Your task to perform on an android device: Open privacy settings Image 0: 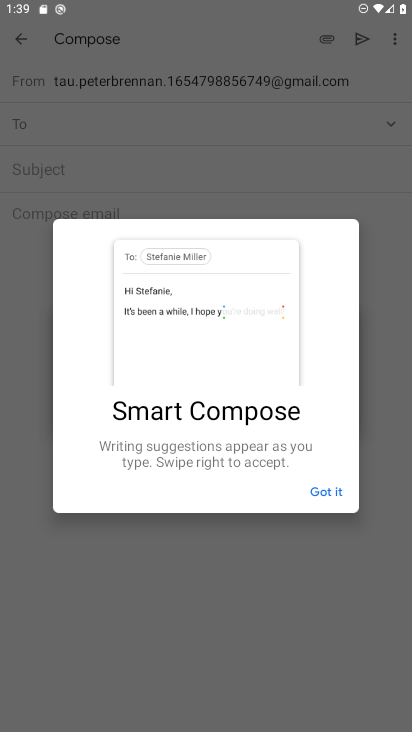
Step 0: click (318, 486)
Your task to perform on an android device: Open privacy settings Image 1: 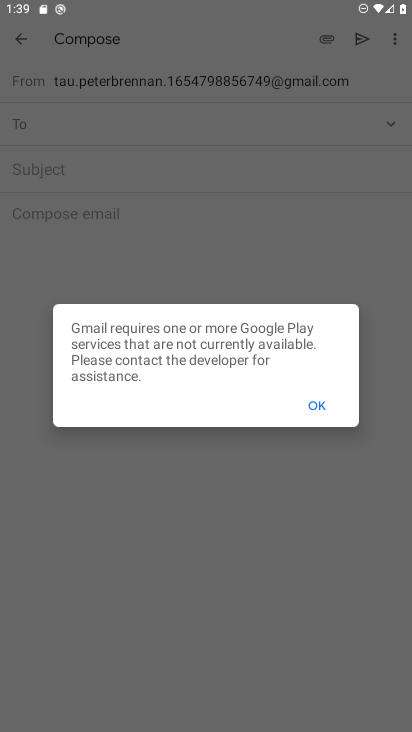
Step 1: press home button
Your task to perform on an android device: Open privacy settings Image 2: 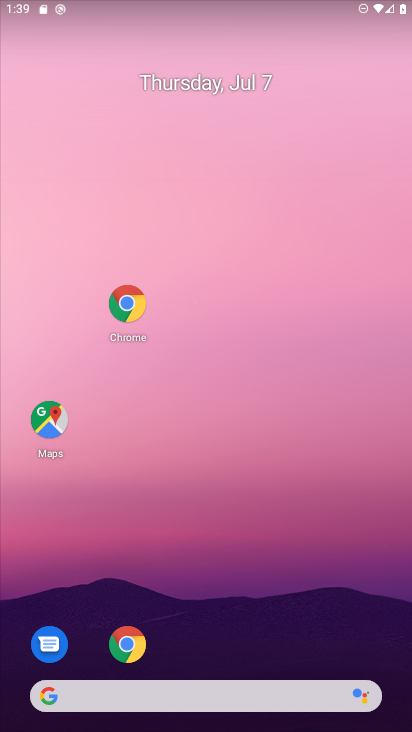
Step 2: drag from (232, 648) to (388, 13)
Your task to perform on an android device: Open privacy settings Image 3: 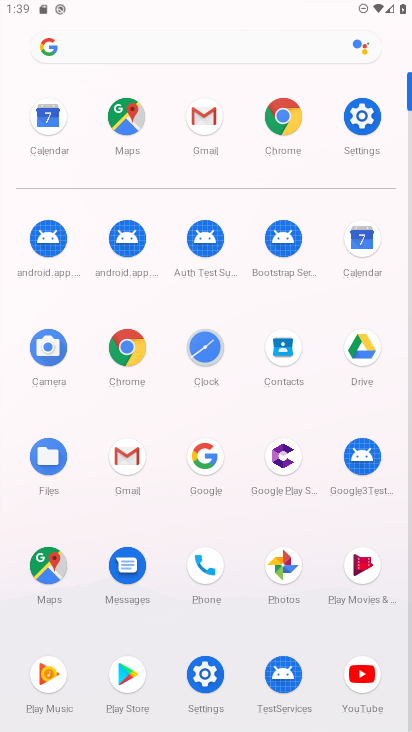
Step 3: click (368, 137)
Your task to perform on an android device: Open privacy settings Image 4: 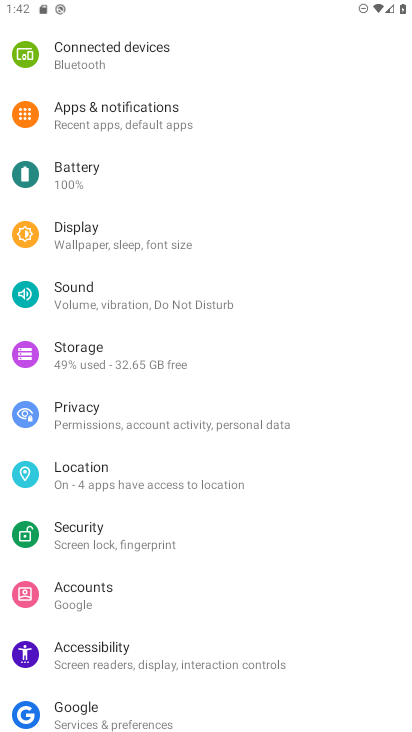
Step 4: click (111, 417)
Your task to perform on an android device: Open privacy settings Image 5: 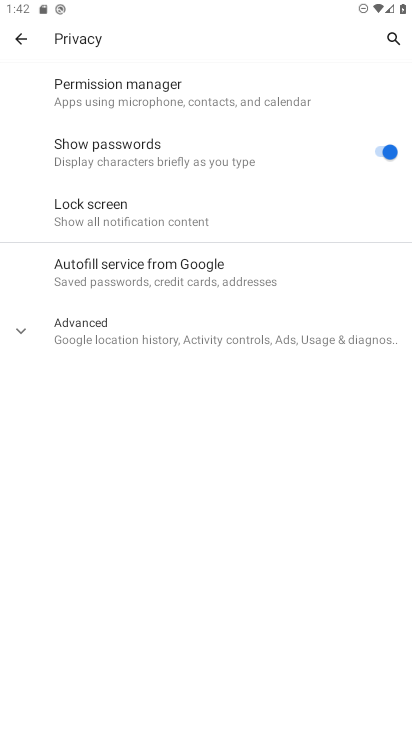
Step 5: task complete